Your task to perform on an android device: Show me the best rated power washer on Home Depot. Image 0: 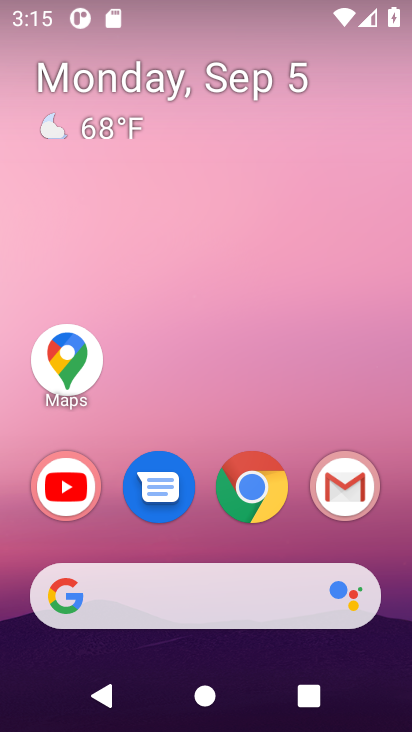
Step 0: click (251, 490)
Your task to perform on an android device: Show me the best rated power washer on Home Depot. Image 1: 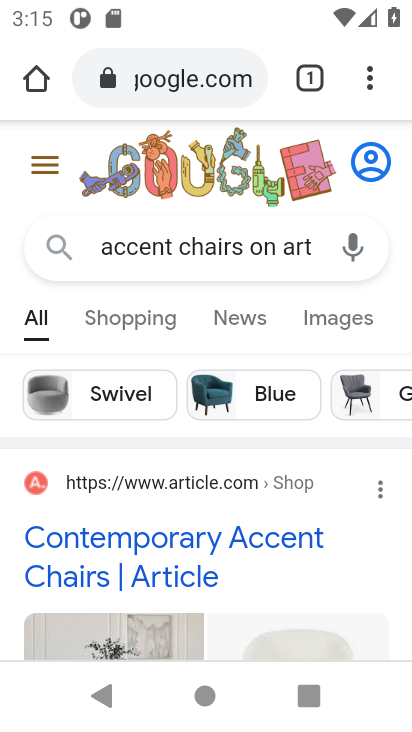
Step 1: click (198, 89)
Your task to perform on an android device: Show me the best rated power washer on Home Depot. Image 2: 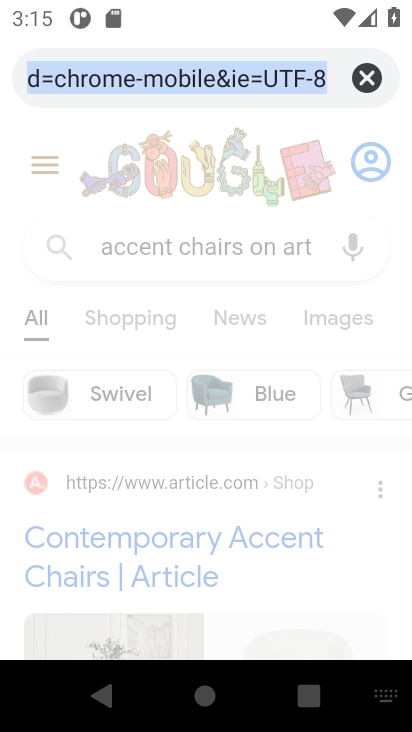
Step 2: click (364, 72)
Your task to perform on an android device: Show me the best rated power washer on Home Depot. Image 3: 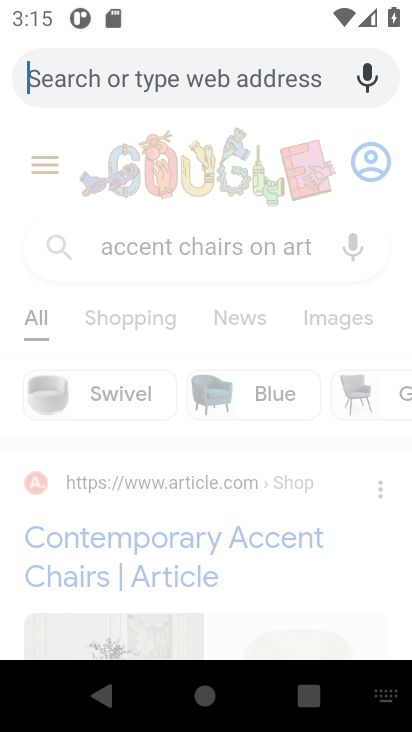
Step 3: type "the best rated power washer on Home Depot."
Your task to perform on an android device: Show me the best rated power washer on Home Depot. Image 4: 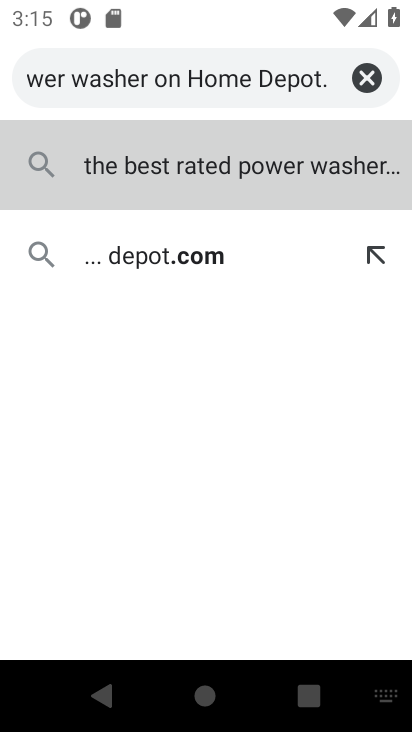
Step 4: click (256, 159)
Your task to perform on an android device: Show me the best rated power washer on Home Depot. Image 5: 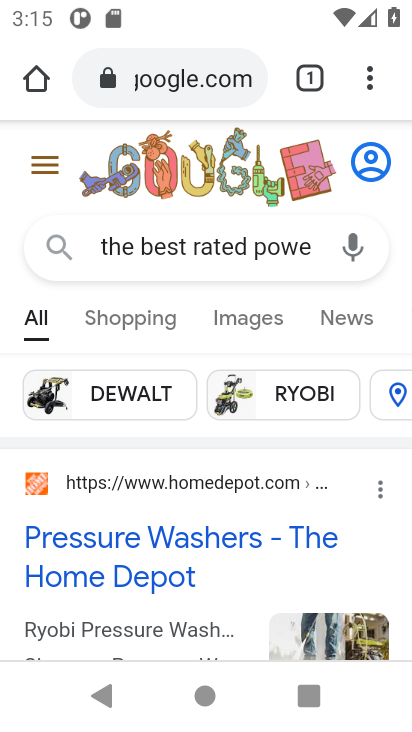
Step 5: task complete